Your task to perform on an android device: Open the phone app and click the voicemail tab. Image 0: 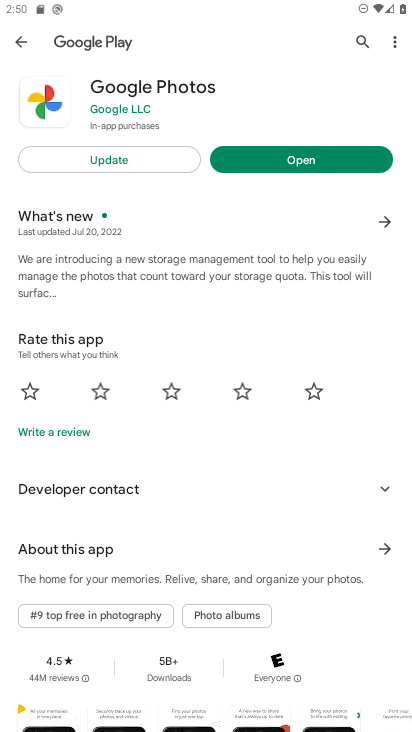
Step 0: press home button
Your task to perform on an android device: Open the phone app and click the voicemail tab. Image 1: 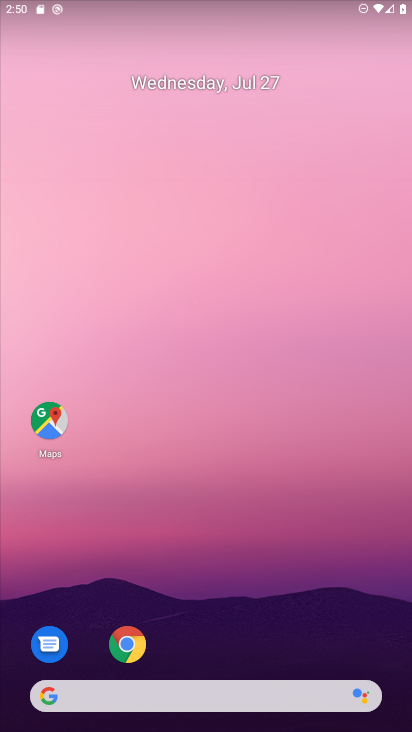
Step 1: drag from (215, 572) to (212, 15)
Your task to perform on an android device: Open the phone app and click the voicemail tab. Image 2: 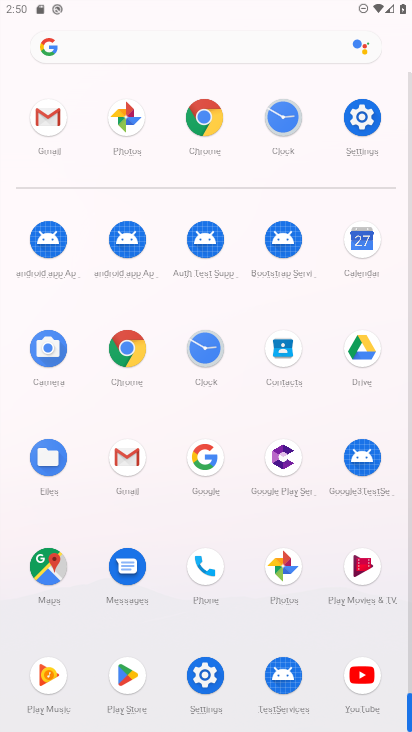
Step 2: click (201, 560)
Your task to perform on an android device: Open the phone app and click the voicemail tab. Image 3: 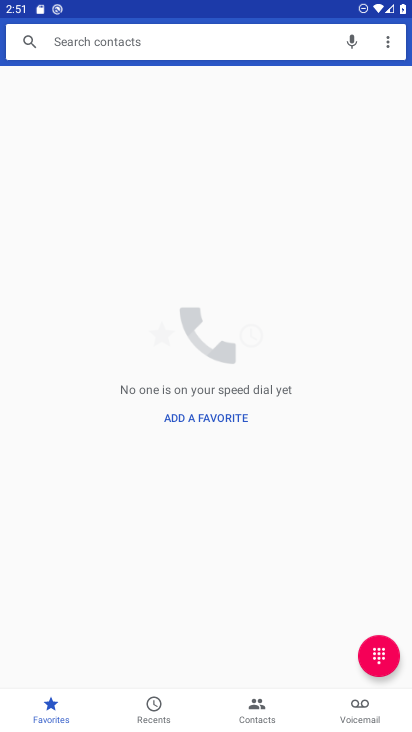
Step 3: click (370, 709)
Your task to perform on an android device: Open the phone app and click the voicemail tab. Image 4: 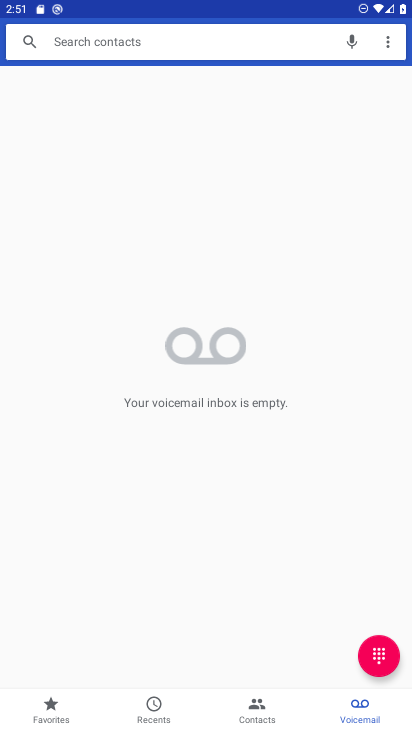
Step 4: task complete